Your task to perform on an android device: Open Google Maps Image 0: 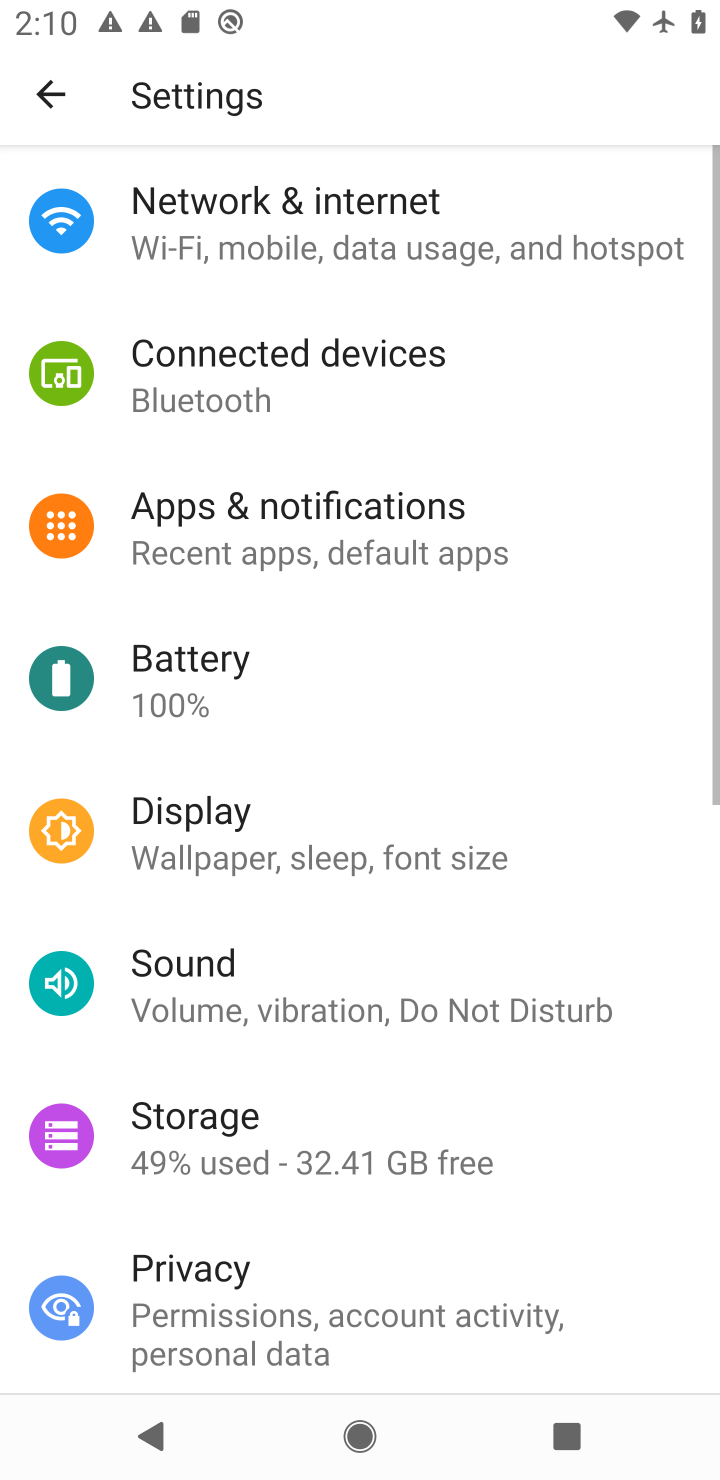
Step 0: press home button
Your task to perform on an android device: Open Google Maps Image 1: 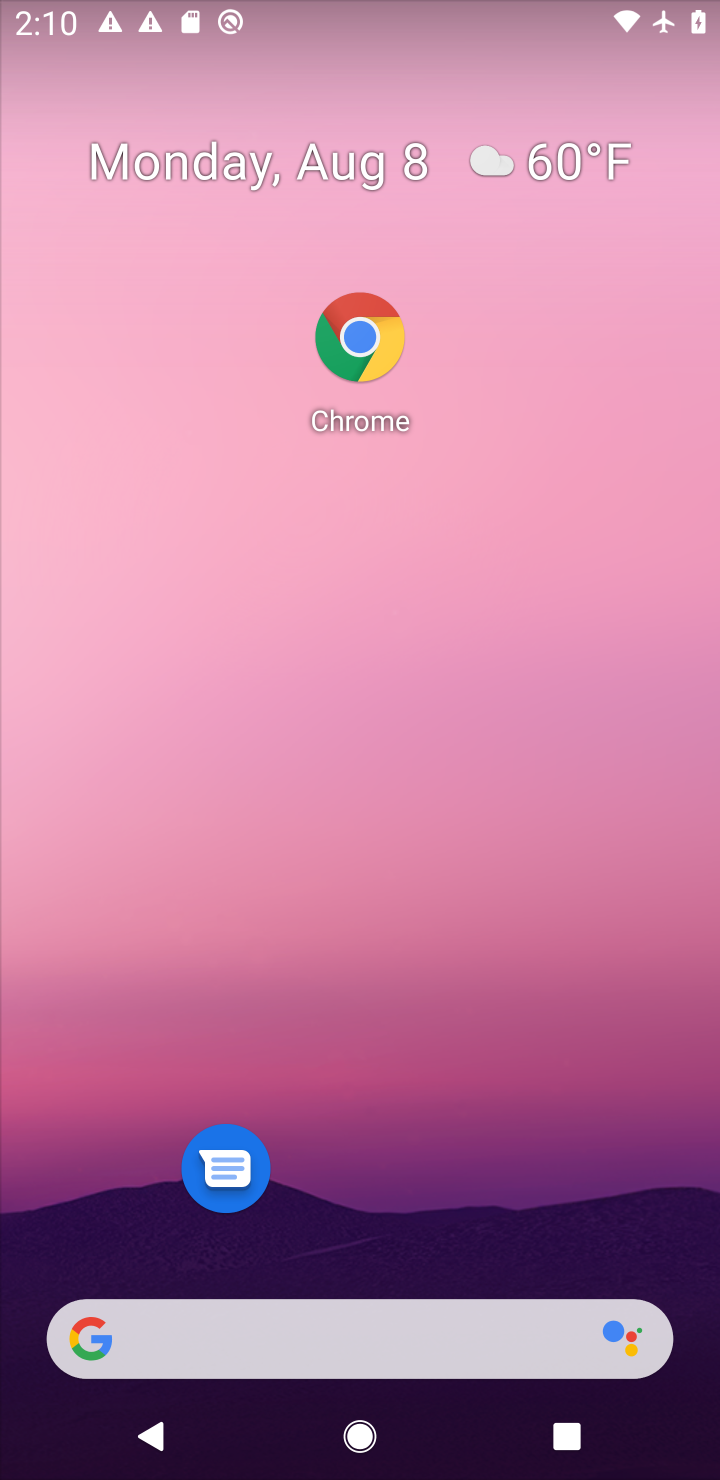
Step 1: drag from (496, 1273) to (476, 224)
Your task to perform on an android device: Open Google Maps Image 2: 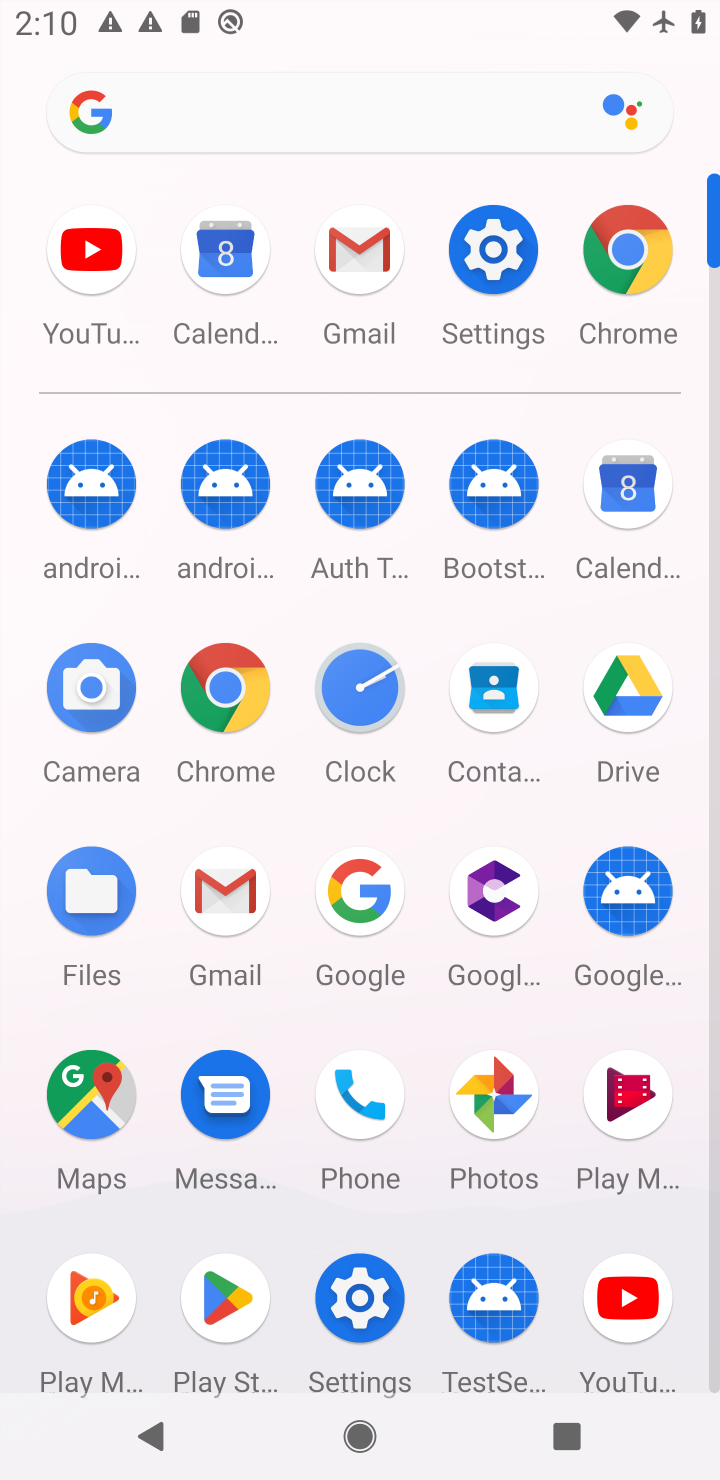
Step 2: click (96, 1141)
Your task to perform on an android device: Open Google Maps Image 3: 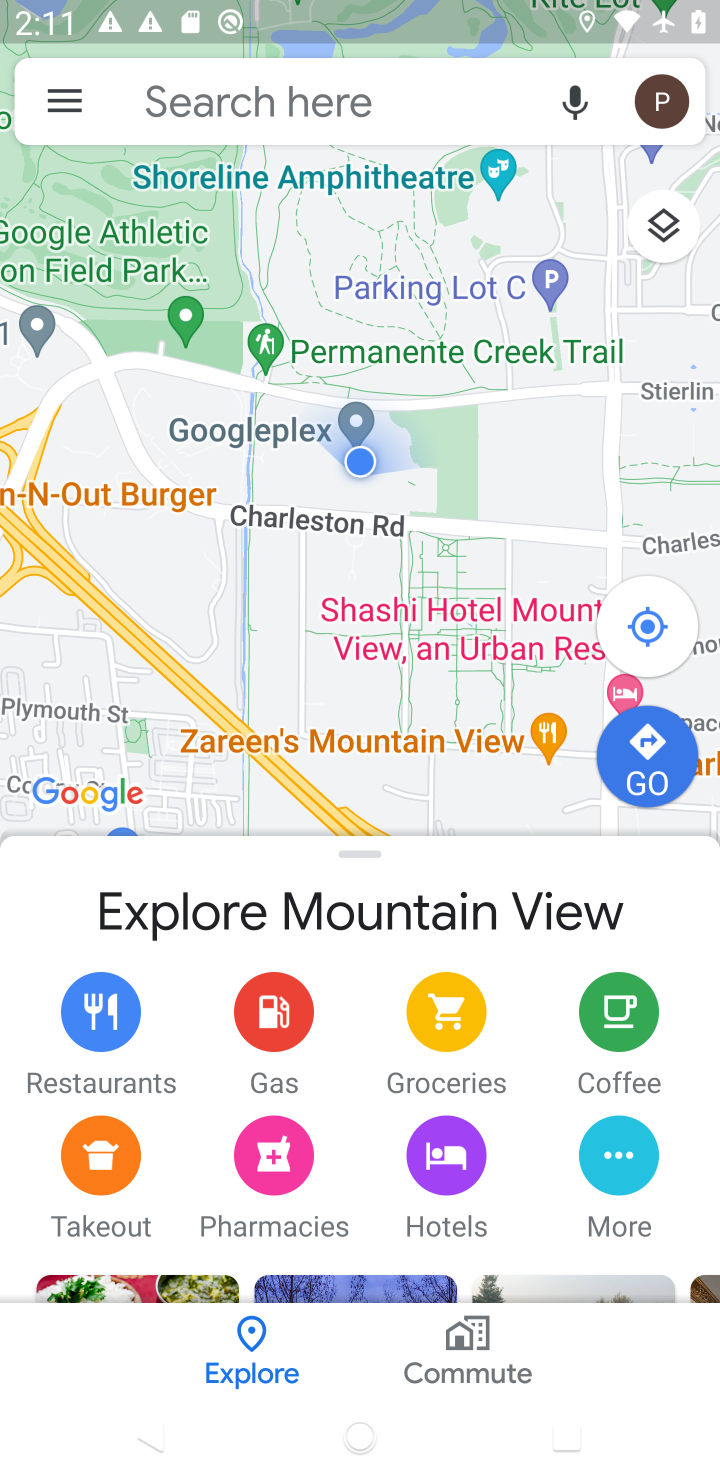
Step 3: task complete